Your task to perform on an android device: Go to calendar. Show me events next week Image 0: 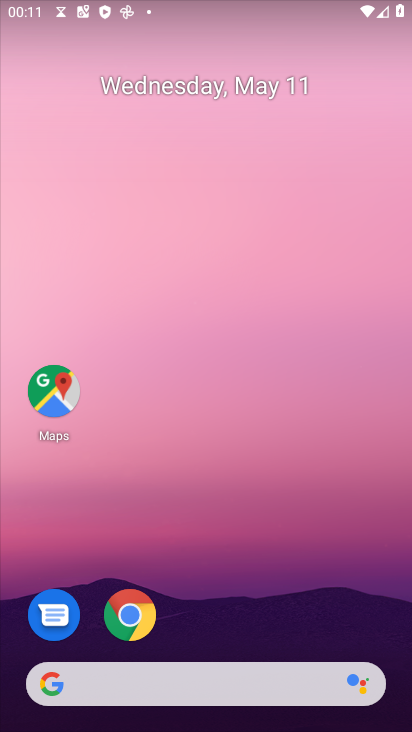
Step 0: drag from (233, 574) to (239, 37)
Your task to perform on an android device: Go to calendar. Show me events next week Image 1: 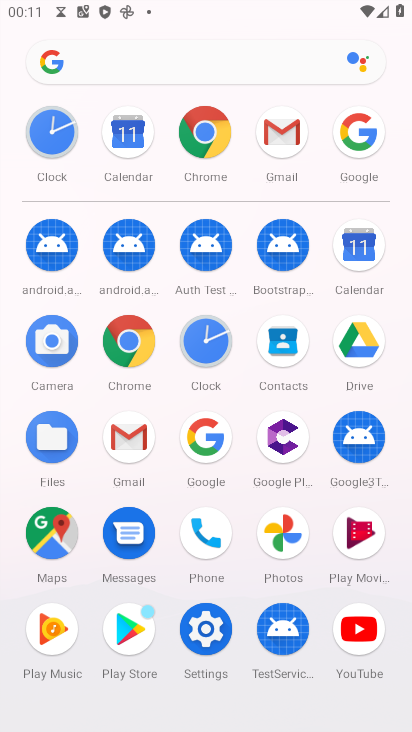
Step 1: click (128, 136)
Your task to perform on an android device: Go to calendar. Show me events next week Image 2: 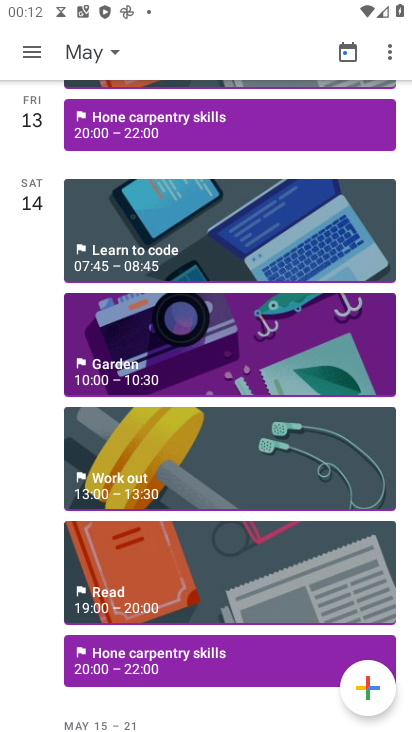
Step 2: click (115, 53)
Your task to perform on an android device: Go to calendar. Show me events next week Image 3: 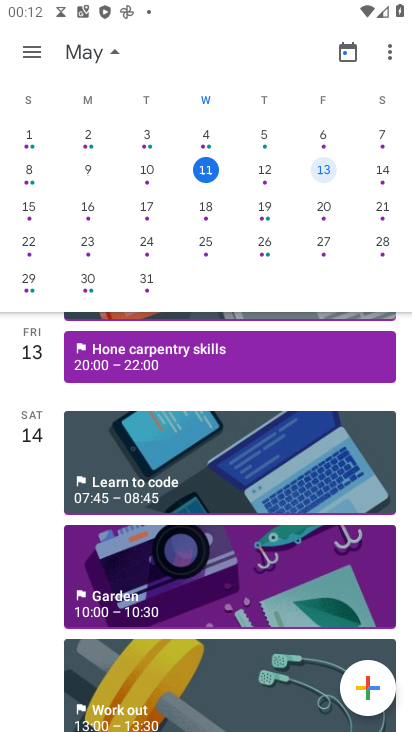
Step 3: click (352, 48)
Your task to perform on an android device: Go to calendar. Show me events next week Image 4: 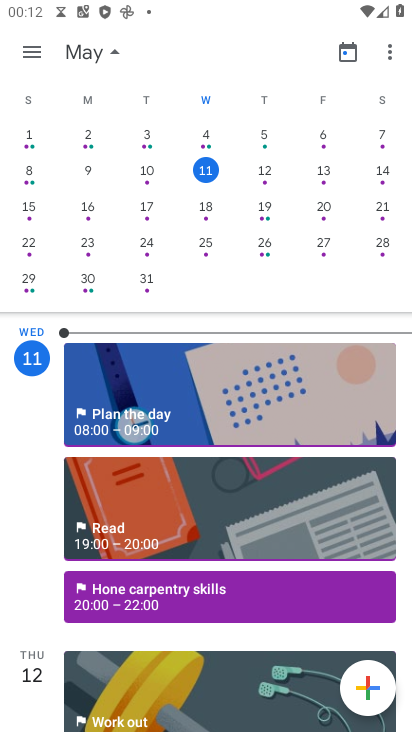
Step 4: click (89, 206)
Your task to perform on an android device: Go to calendar. Show me events next week Image 5: 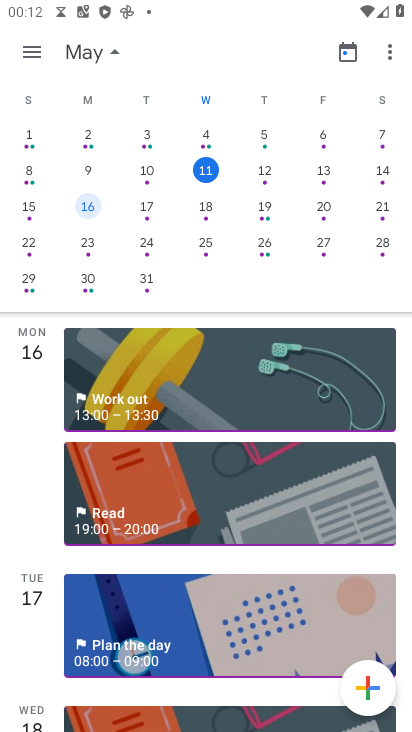
Step 5: click (31, 51)
Your task to perform on an android device: Go to calendar. Show me events next week Image 6: 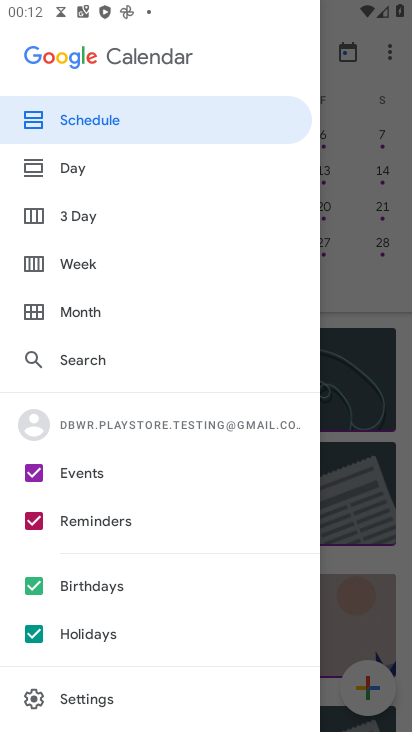
Step 6: click (81, 261)
Your task to perform on an android device: Go to calendar. Show me events next week Image 7: 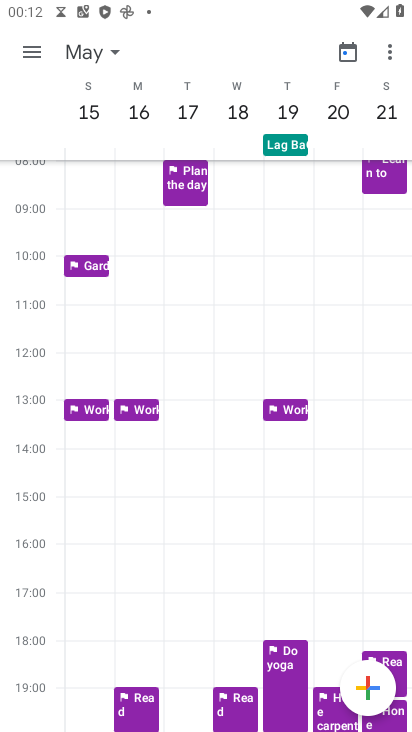
Step 7: task complete